Your task to perform on an android device: manage bookmarks in the chrome app Image 0: 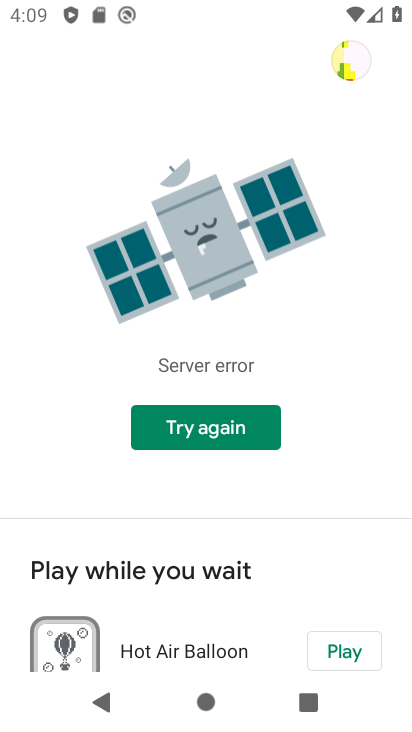
Step 0: press home button
Your task to perform on an android device: manage bookmarks in the chrome app Image 1: 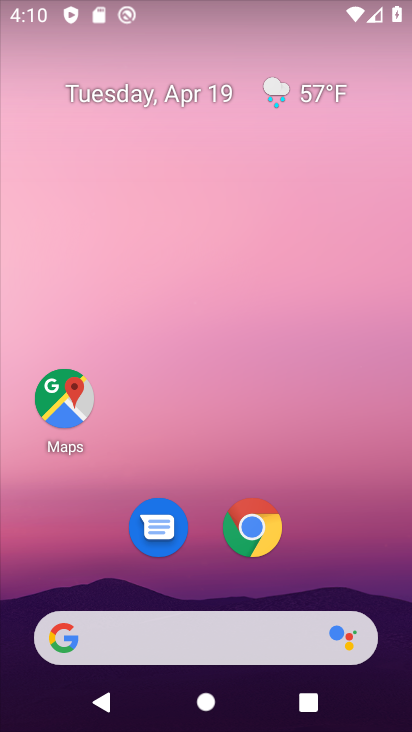
Step 1: click (248, 523)
Your task to perform on an android device: manage bookmarks in the chrome app Image 2: 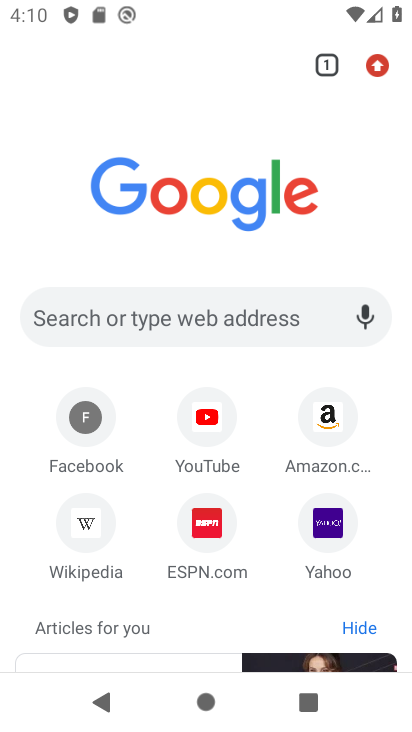
Step 2: click (377, 66)
Your task to perform on an android device: manage bookmarks in the chrome app Image 3: 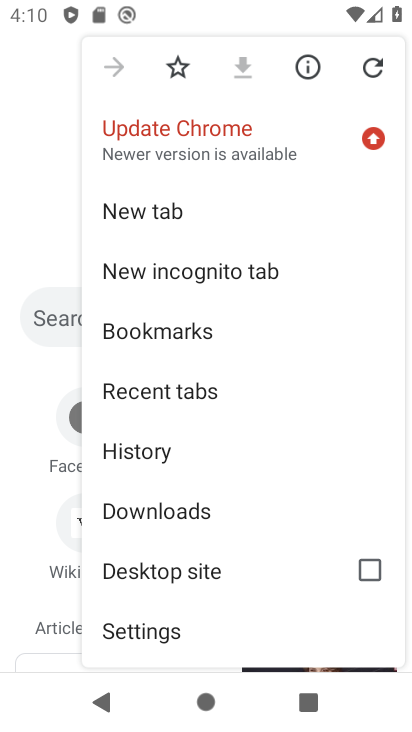
Step 3: click (141, 336)
Your task to perform on an android device: manage bookmarks in the chrome app Image 4: 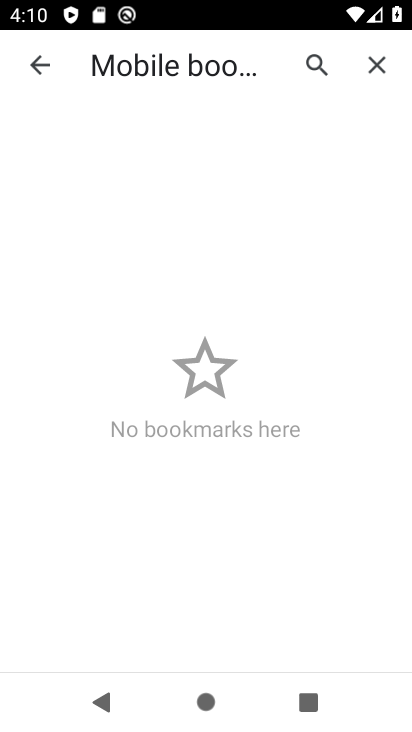
Step 4: task complete